Your task to perform on an android device: Open notification settings Image 0: 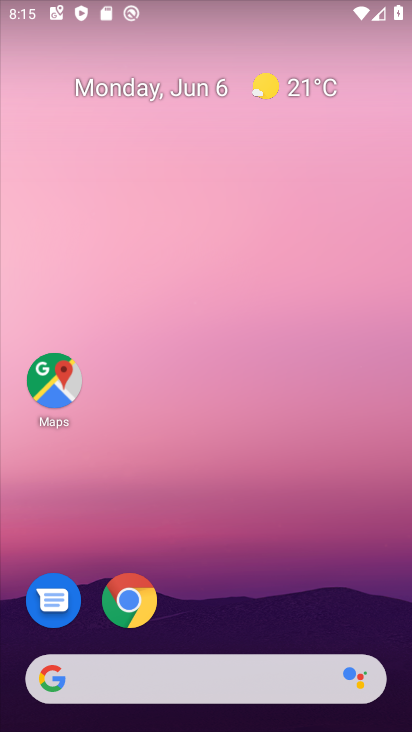
Step 0: drag from (397, 620) to (326, 56)
Your task to perform on an android device: Open notification settings Image 1: 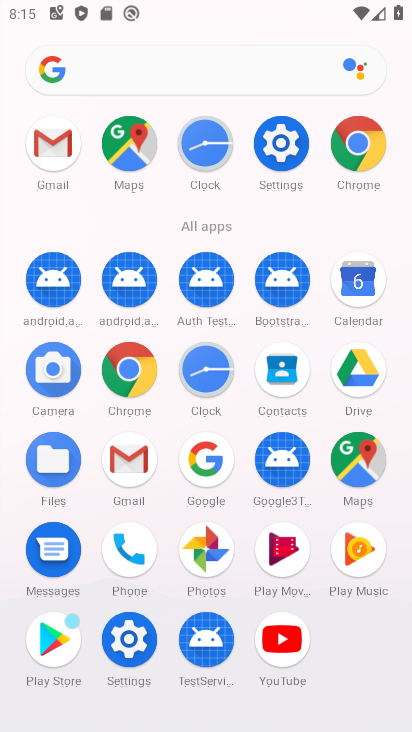
Step 1: click (129, 636)
Your task to perform on an android device: Open notification settings Image 2: 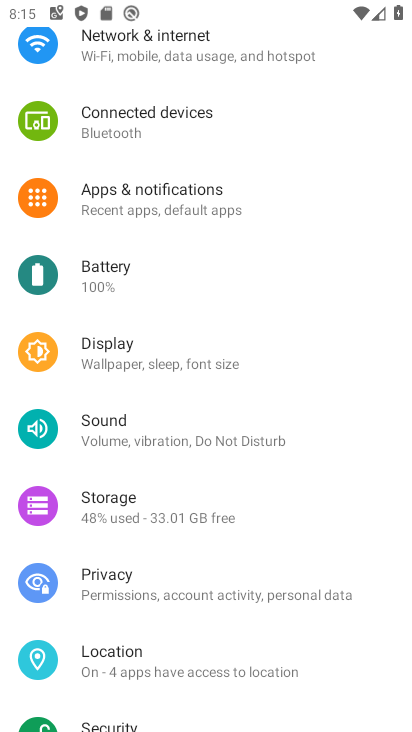
Step 2: click (139, 194)
Your task to perform on an android device: Open notification settings Image 3: 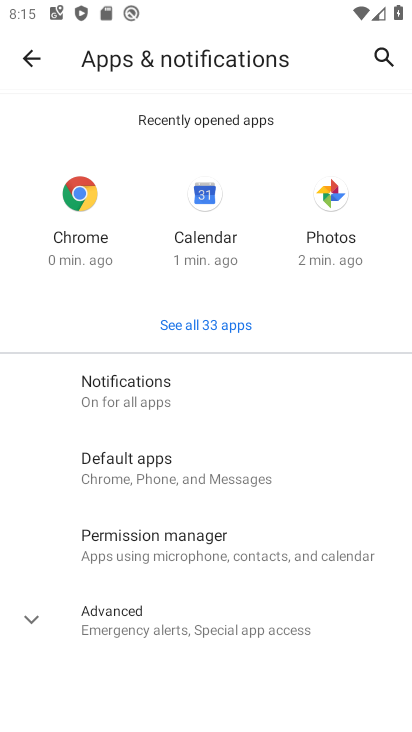
Step 3: click (118, 388)
Your task to perform on an android device: Open notification settings Image 4: 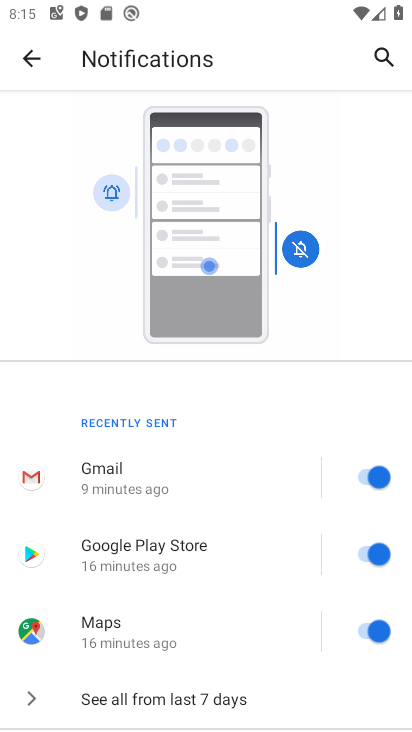
Step 4: drag from (315, 662) to (238, 164)
Your task to perform on an android device: Open notification settings Image 5: 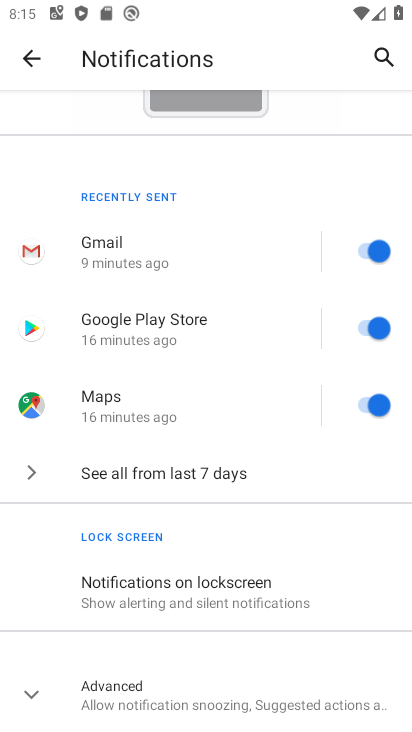
Step 5: click (40, 697)
Your task to perform on an android device: Open notification settings Image 6: 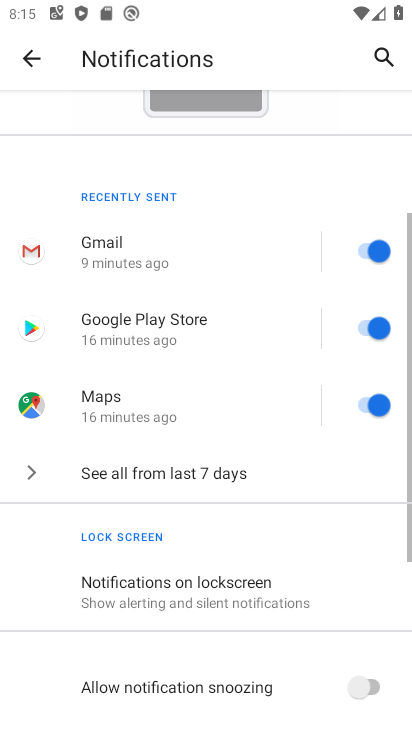
Step 6: task complete